Your task to perform on an android device: Search for flights from Seoul to Mexico city Image 0: 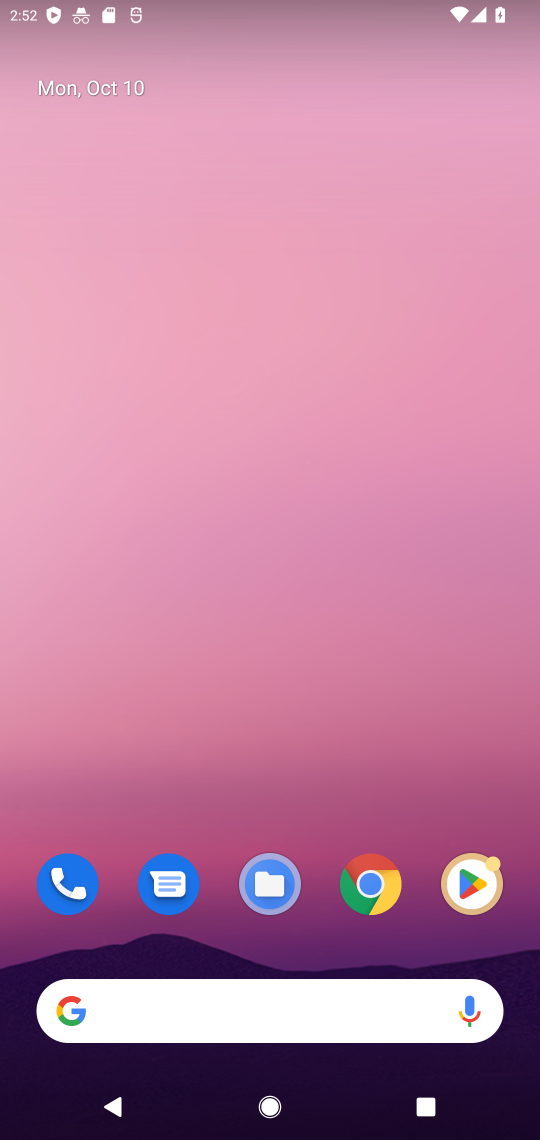
Step 0: click (175, 1014)
Your task to perform on an android device: Search for flights from Seoul to Mexico city Image 1: 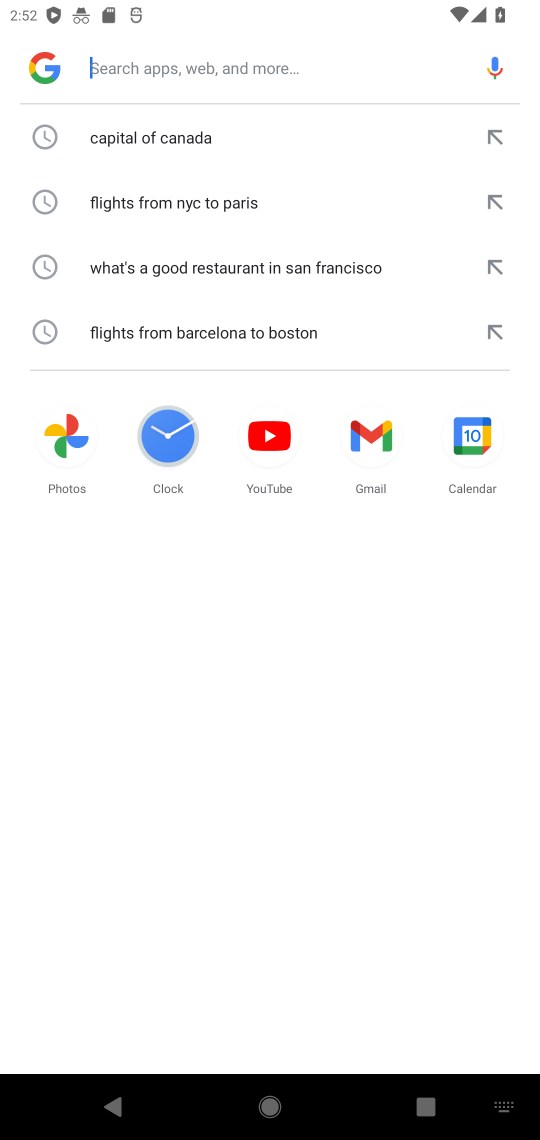
Step 1: type "flights from Seoul to Mexico city"
Your task to perform on an android device: Search for flights from Seoul to Mexico city Image 2: 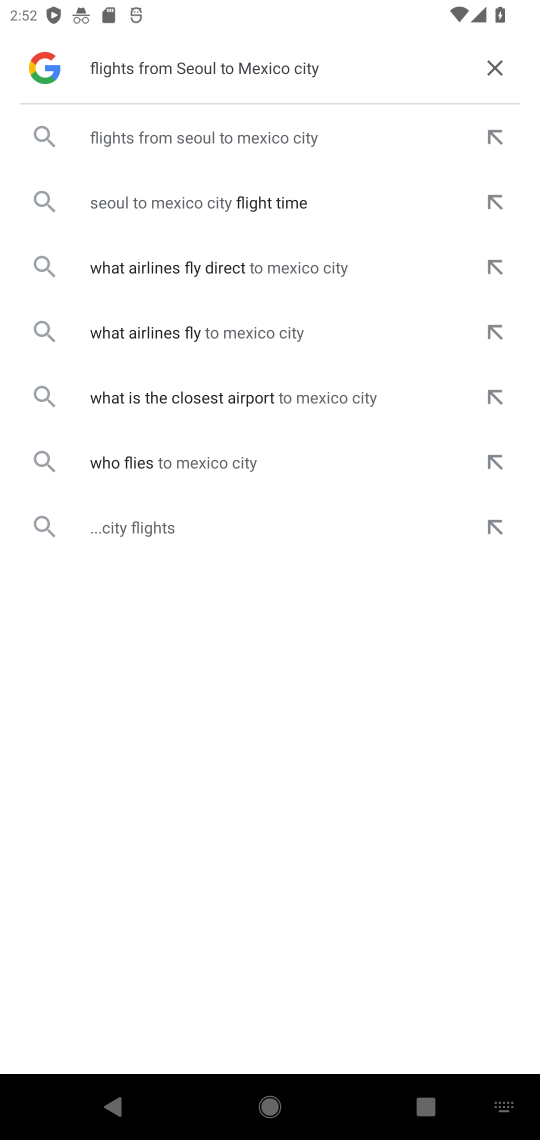
Step 2: click (191, 138)
Your task to perform on an android device: Search for flights from Seoul to Mexico city Image 3: 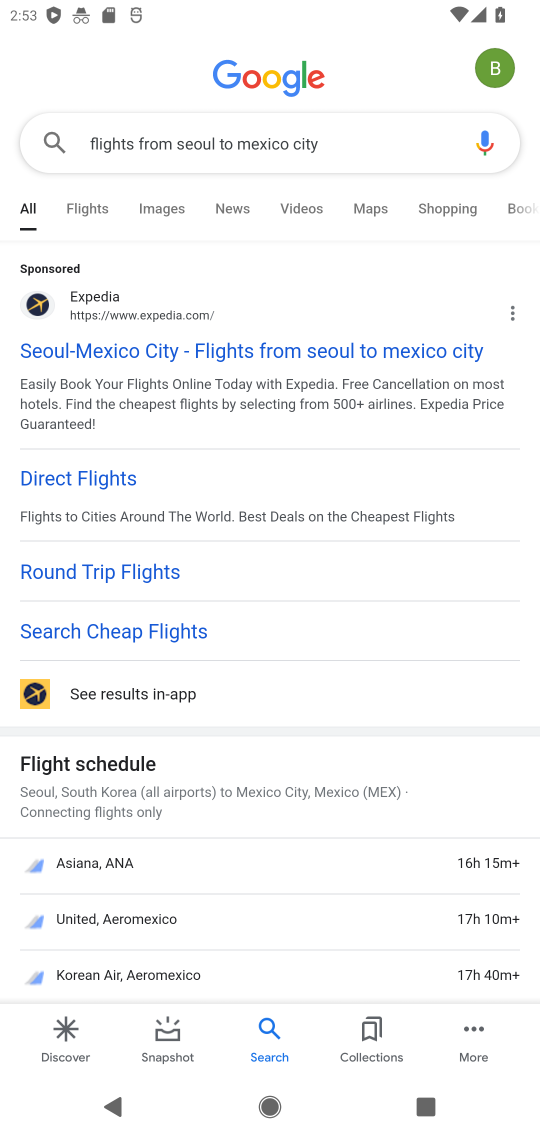
Step 3: click (248, 352)
Your task to perform on an android device: Search for flights from Seoul to Mexico city Image 4: 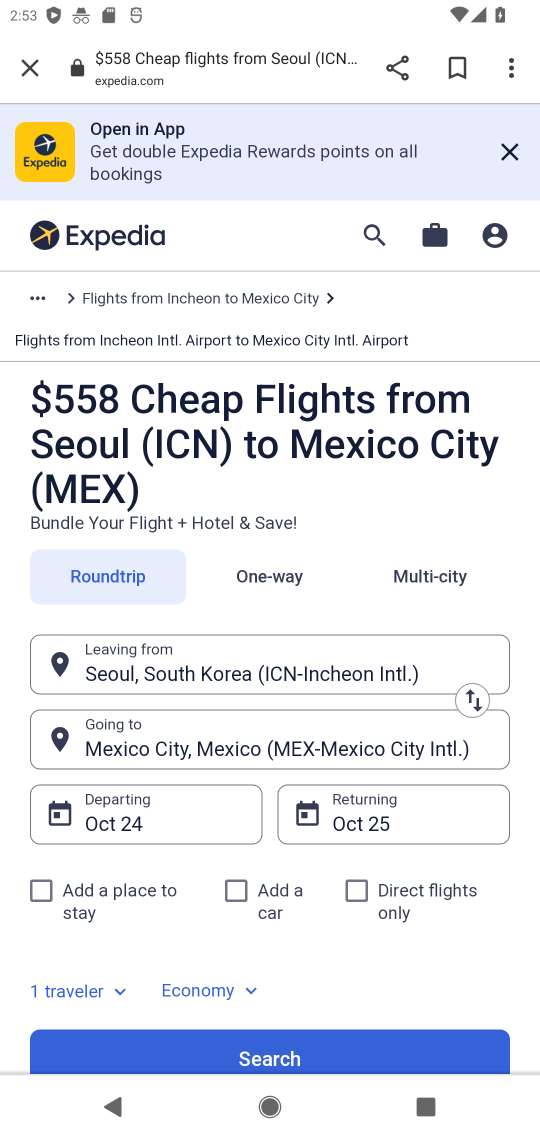
Step 4: click (324, 1055)
Your task to perform on an android device: Search for flights from Seoul to Mexico city Image 5: 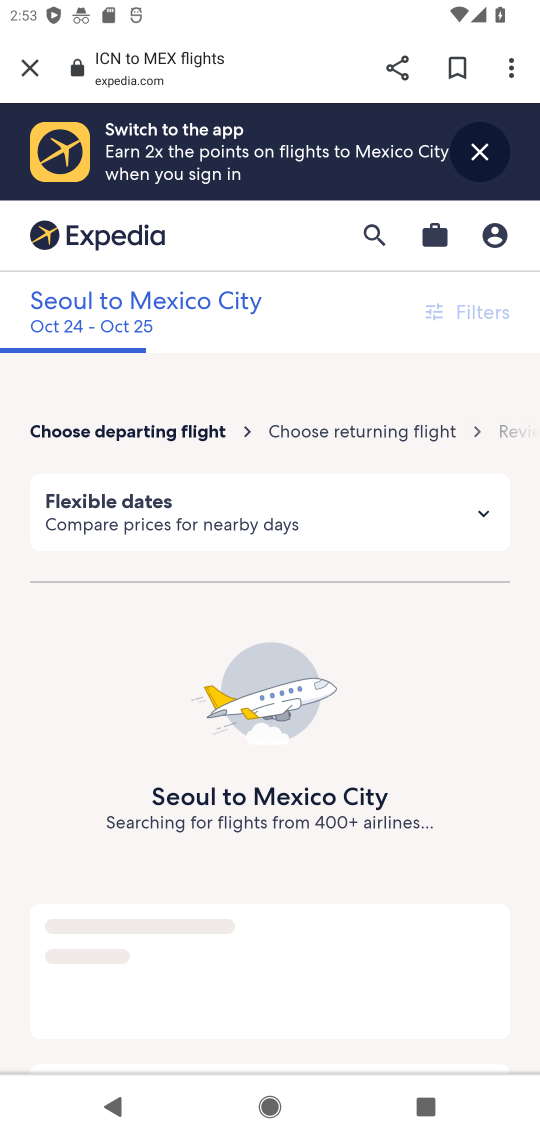
Step 5: task complete